Your task to perform on an android device: move an email to a new category in the gmail app Image 0: 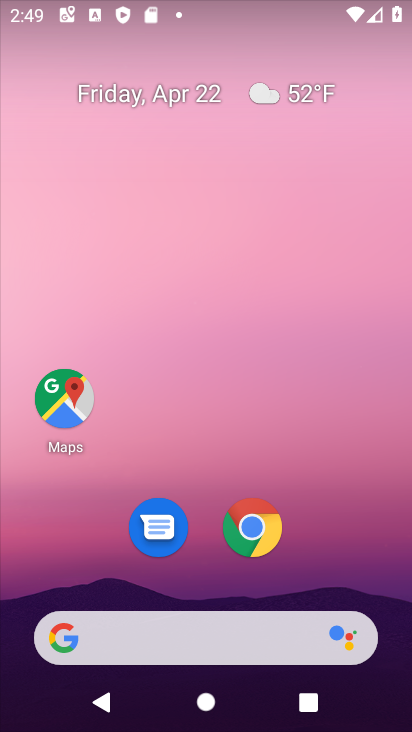
Step 0: drag from (343, 533) to (352, 152)
Your task to perform on an android device: move an email to a new category in the gmail app Image 1: 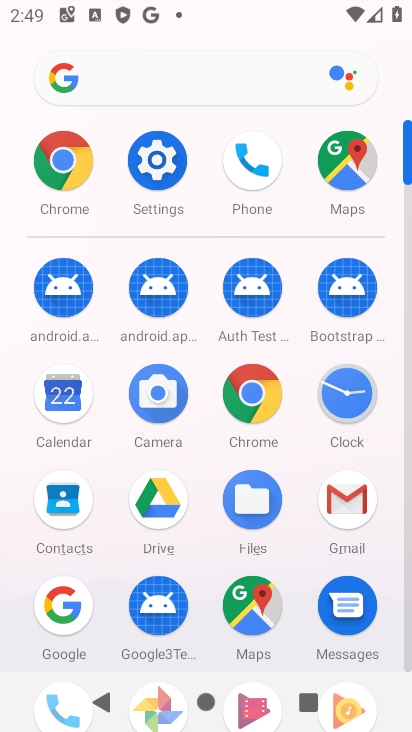
Step 1: click (352, 514)
Your task to perform on an android device: move an email to a new category in the gmail app Image 2: 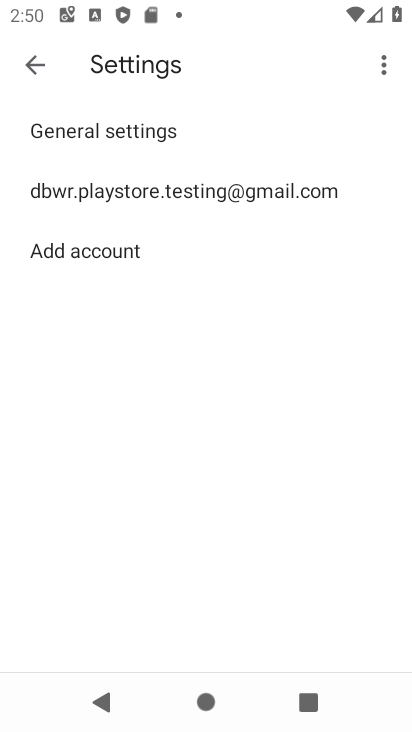
Step 2: click (31, 53)
Your task to perform on an android device: move an email to a new category in the gmail app Image 3: 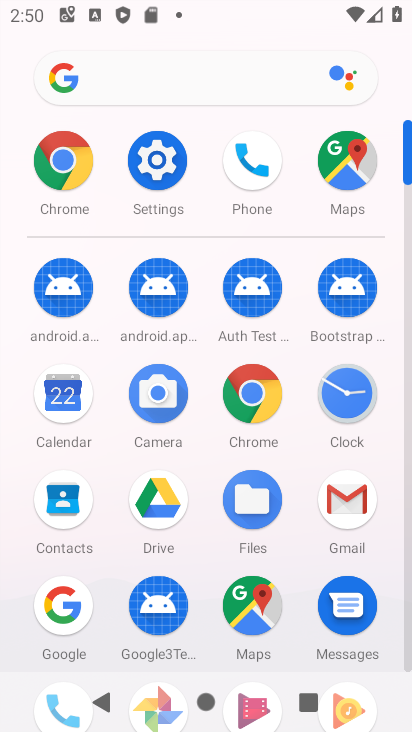
Step 3: click (338, 505)
Your task to perform on an android device: move an email to a new category in the gmail app Image 4: 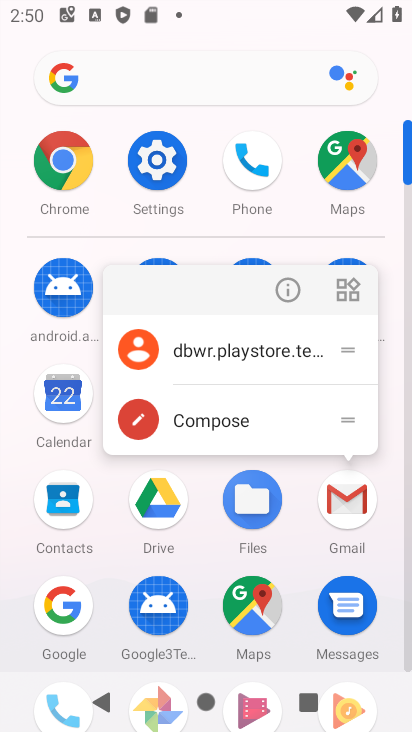
Step 4: click (338, 504)
Your task to perform on an android device: move an email to a new category in the gmail app Image 5: 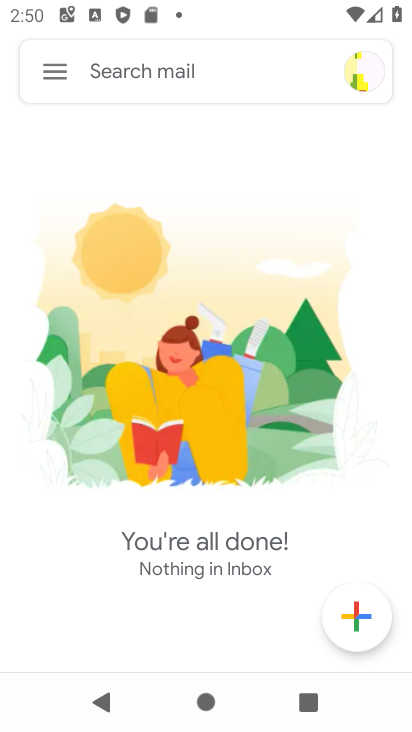
Step 5: task complete